Your task to perform on an android device: Open Chrome and go to settings Image 0: 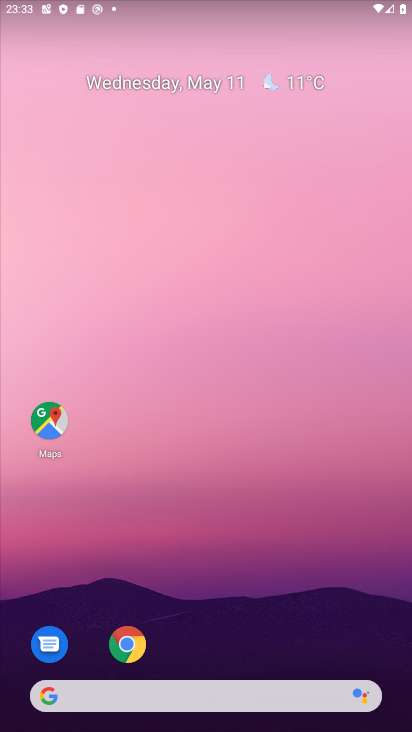
Step 0: press home button
Your task to perform on an android device: Open Chrome and go to settings Image 1: 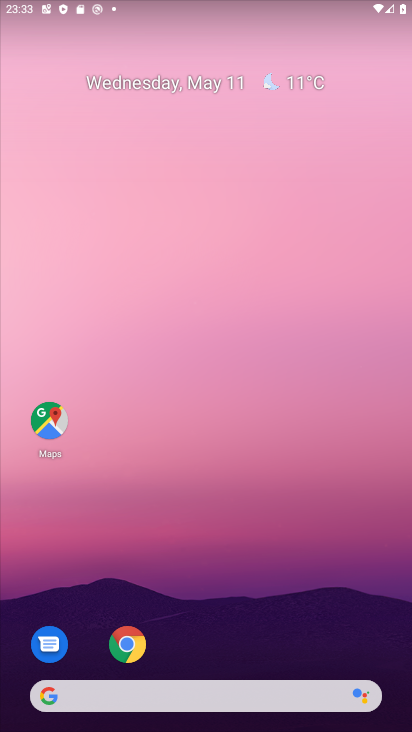
Step 1: click (120, 640)
Your task to perform on an android device: Open Chrome and go to settings Image 2: 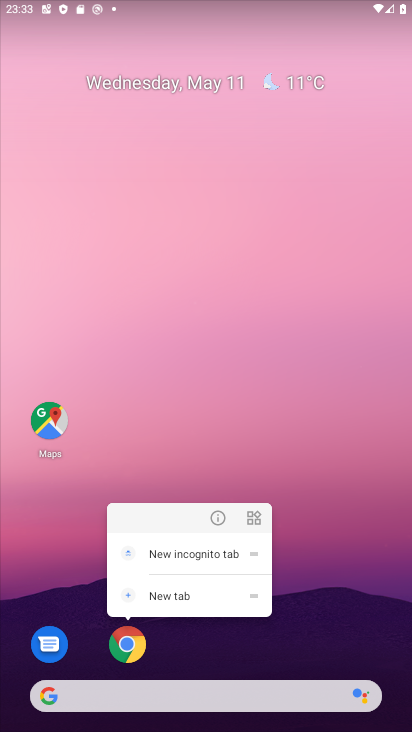
Step 2: click (123, 643)
Your task to perform on an android device: Open Chrome and go to settings Image 3: 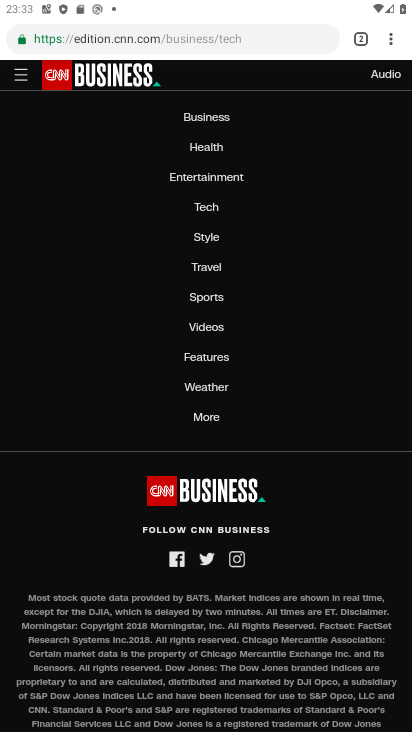
Step 3: click (388, 37)
Your task to perform on an android device: Open Chrome and go to settings Image 4: 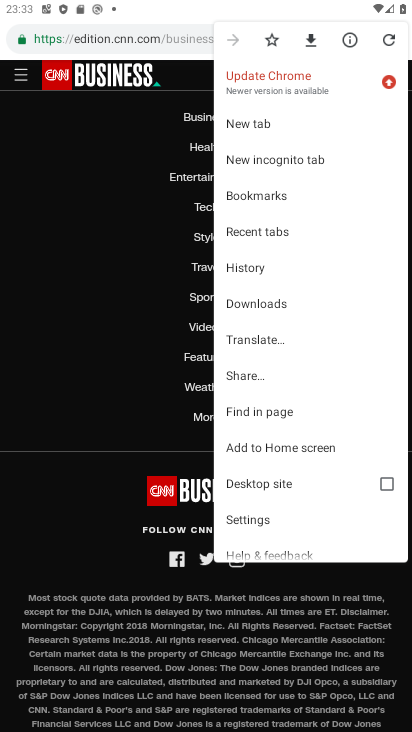
Step 4: click (274, 518)
Your task to perform on an android device: Open Chrome and go to settings Image 5: 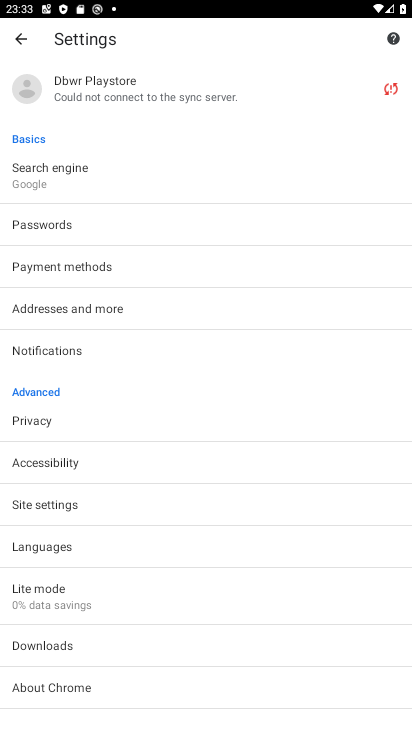
Step 5: task complete